Your task to perform on an android device: check data usage Image 0: 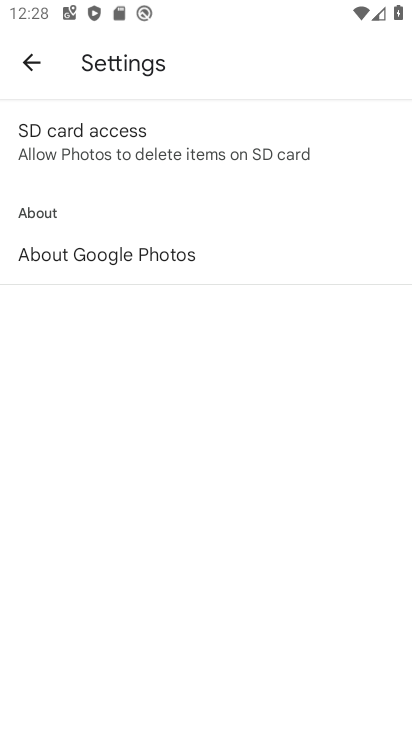
Step 0: press home button
Your task to perform on an android device: check data usage Image 1: 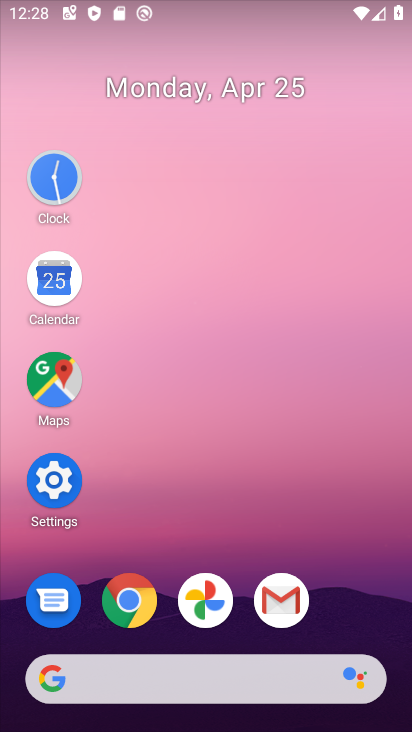
Step 1: click (48, 477)
Your task to perform on an android device: check data usage Image 2: 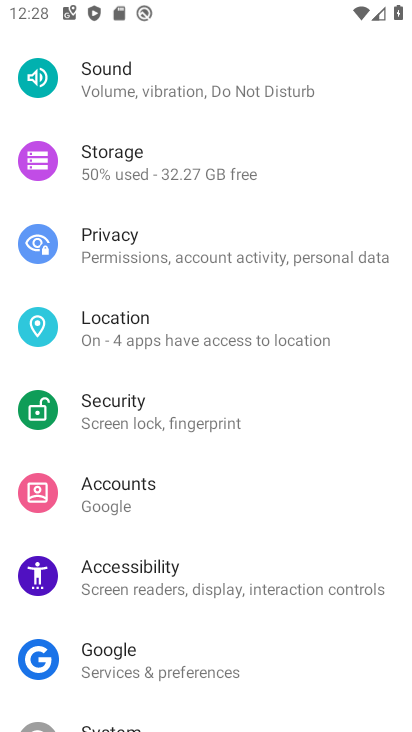
Step 2: drag from (189, 130) to (346, 724)
Your task to perform on an android device: check data usage Image 3: 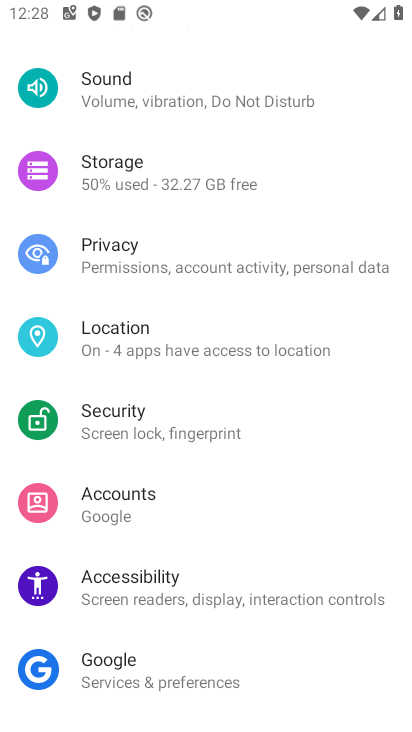
Step 3: drag from (245, 132) to (345, 569)
Your task to perform on an android device: check data usage Image 4: 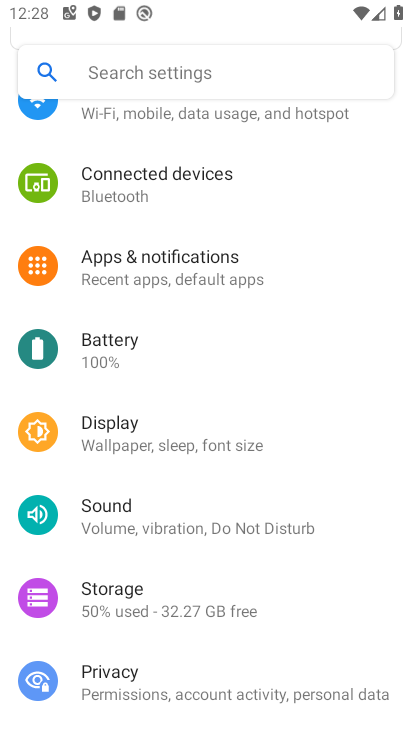
Step 4: drag from (233, 217) to (302, 730)
Your task to perform on an android device: check data usage Image 5: 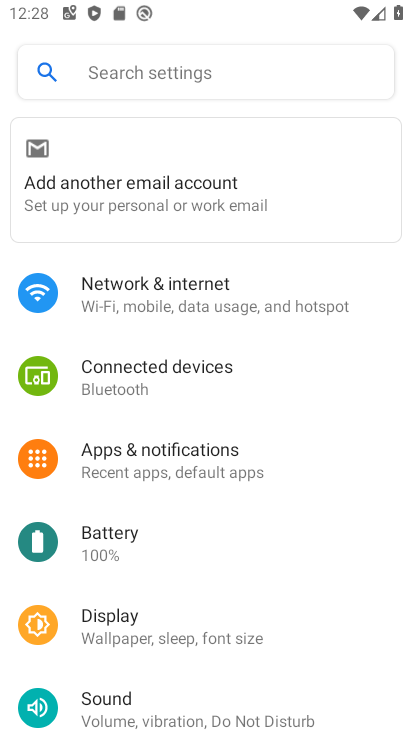
Step 5: click (165, 289)
Your task to perform on an android device: check data usage Image 6: 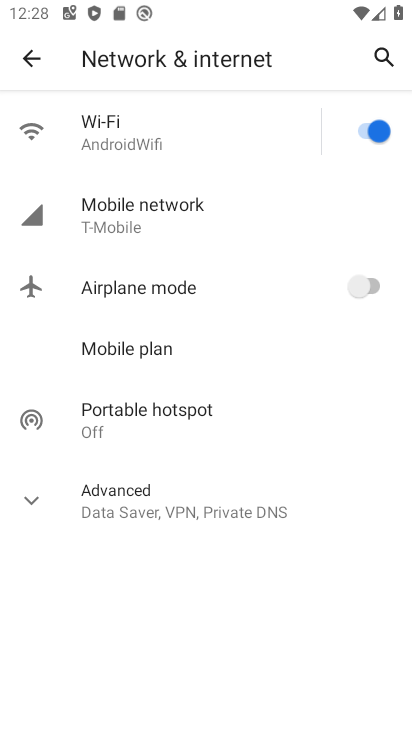
Step 6: click (144, 202)
Your task to perform on an android device: check data usage Image 7: 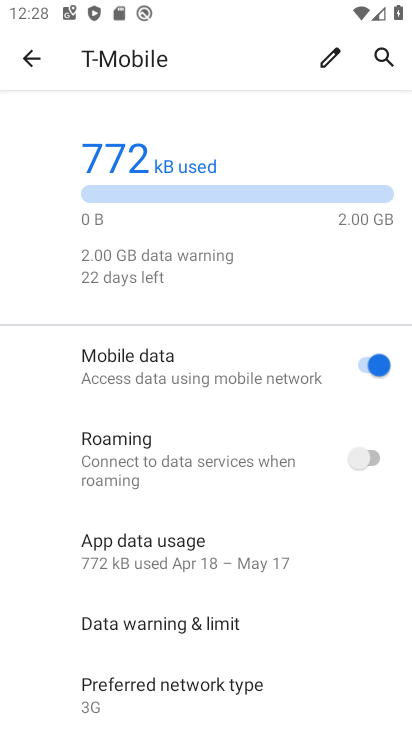
Step 7: task complete